Your task to perform on an android device: Open the stopwatch Image 0: 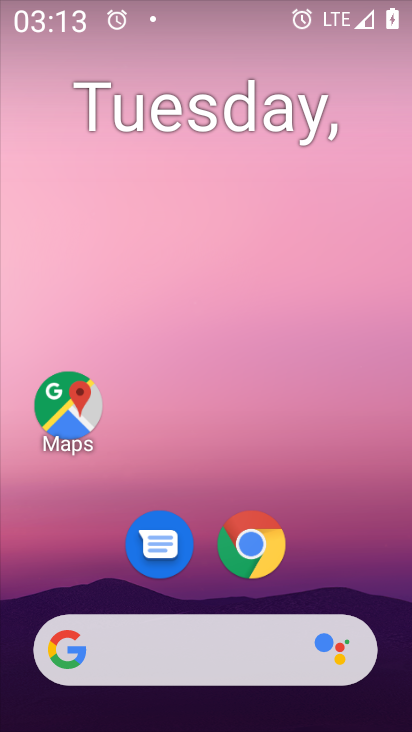
Step 0: drag from (357, 540) to (257, 78)
Your task to perform on an android device: Open the stopwatch Image 1: 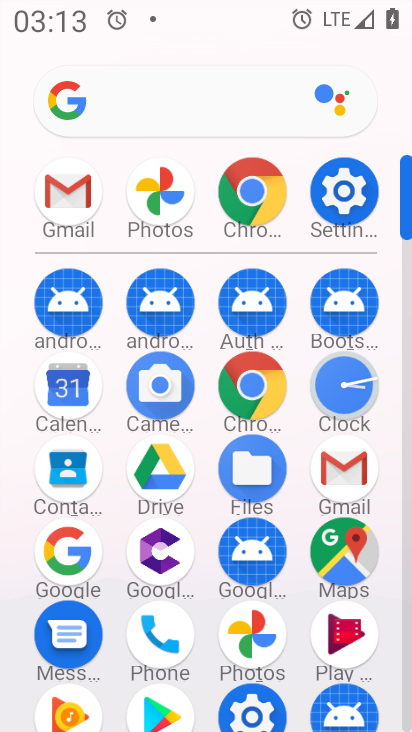
Step 1: drag from (8, 614) to (18, 238)
Your task to perform on an android device: Open the stopwatch Image 2: 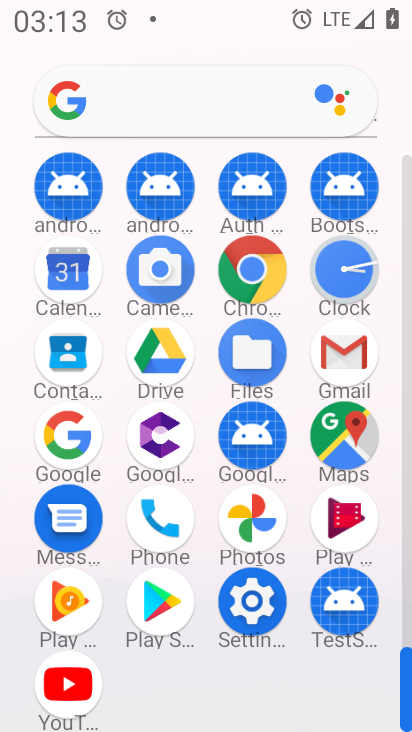
Step 2: click (348, 264)
Your task to perform on an android device: Open the stopwatch Image 3: 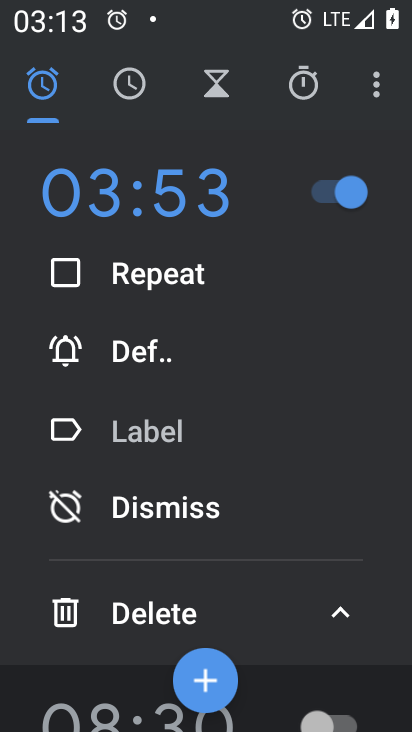
Step 3: click (229, 80)
Your task to perform on an android device: Open the stopwatch Image 4: 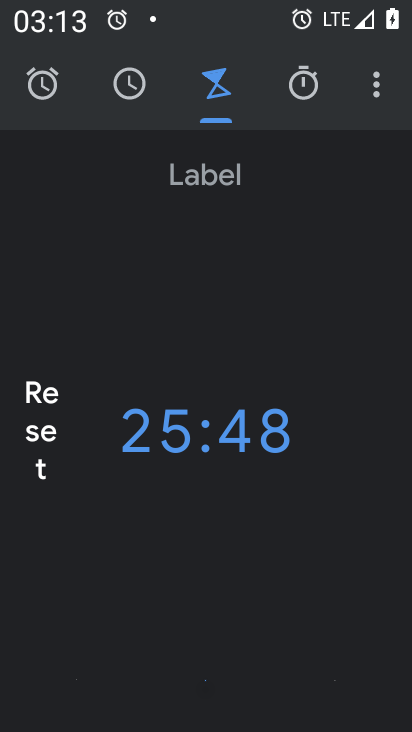
Step 4: click (309, 78)
Your task to perform on an android device: Open the stopwatch Image 5: 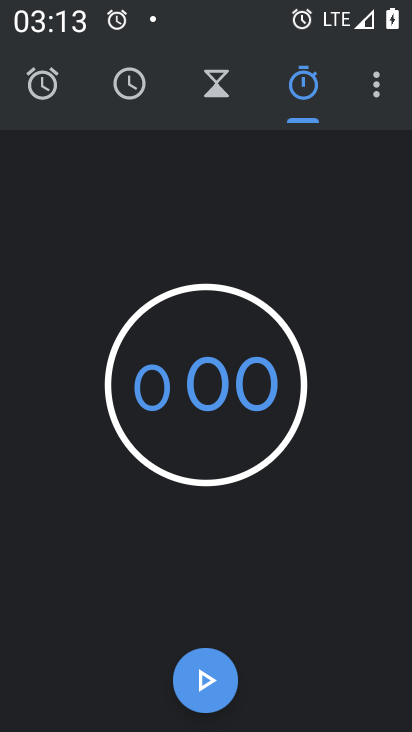
Step 5: click (213, 671)
Your task to perform on an android device: Open the stopwatch Image 6: 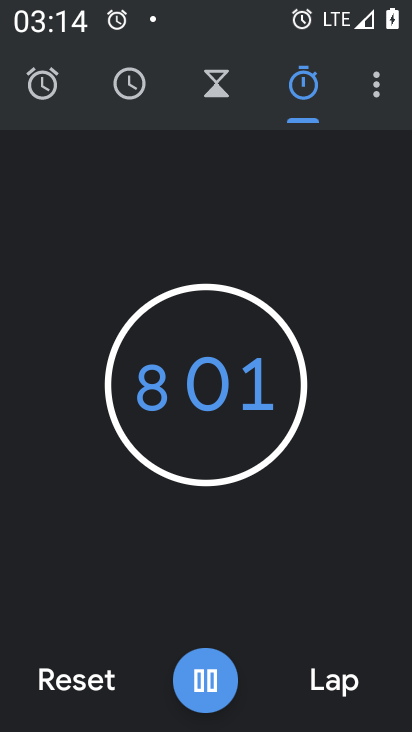
Step 6: task complete